Your task to perform on an android device: Play the latest video from the BBC Image 0: 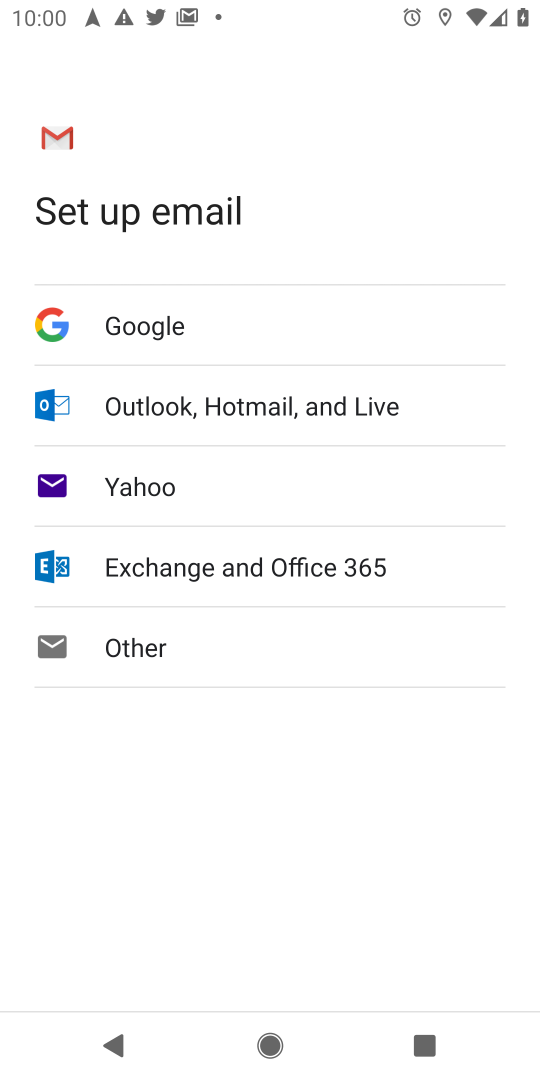
Step 0: press home button
Your task to perform on an android device: Play the latest video from the BBC Image 1: 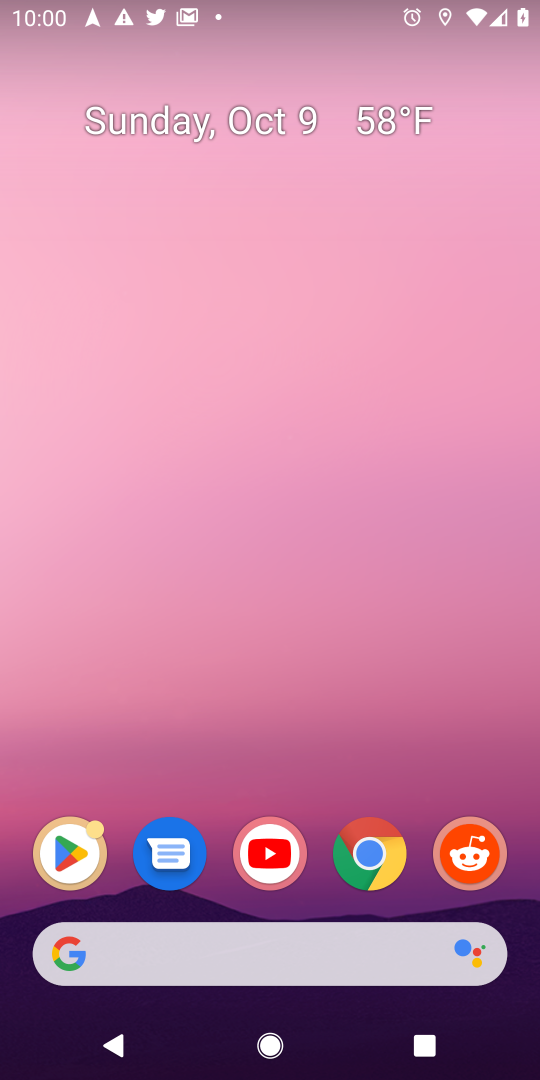
Step 1: click (258, 848)
Your task to perform on an android device: Play the latest video from the BBC Image 2: 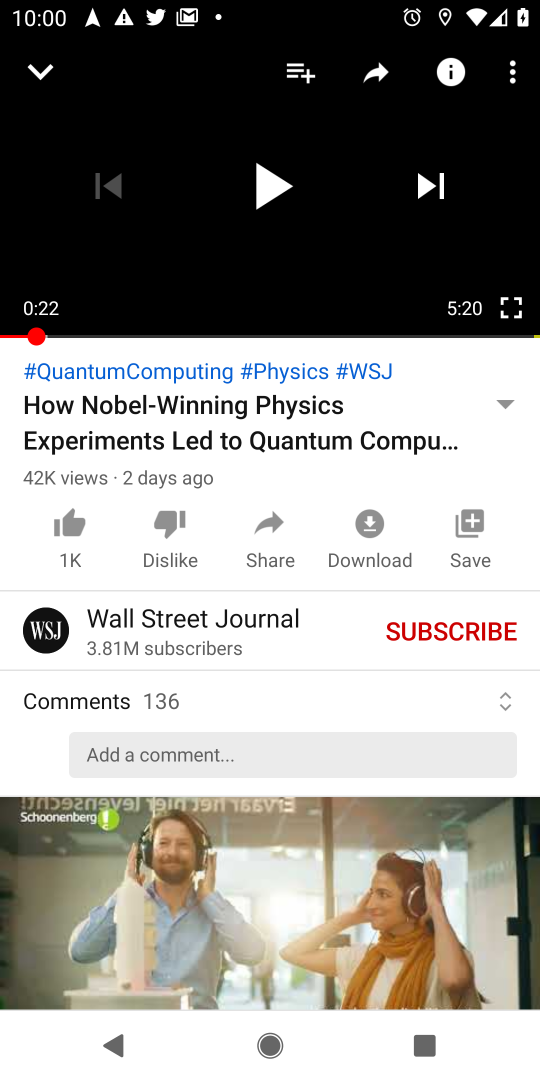
Step 2: drag from (282, 275) to (274, 975)
Your task to perform on an android device: Play the latest video from the BBC Image 3: 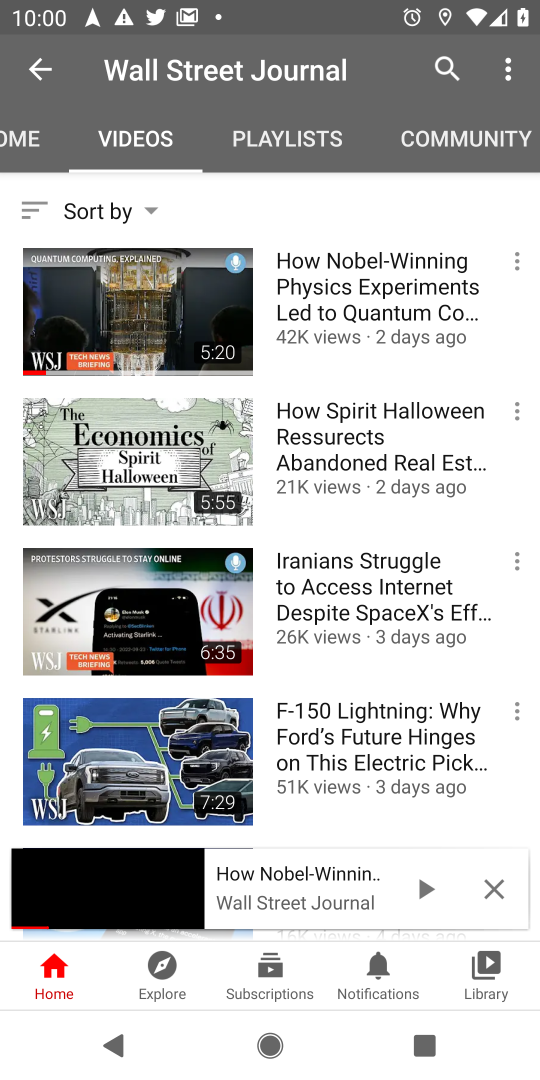
Step 3: click (455, 58)
Your task to perform on an android device: Play the latest video from the BBC Image 4: 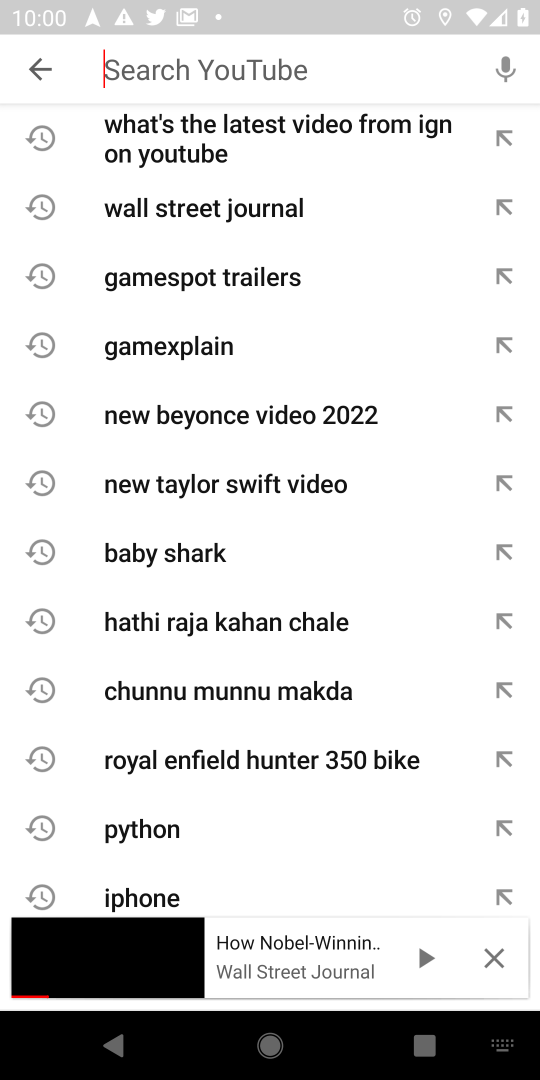
Step 4: type "bbc"
Your task to perform on an android device: Play the latest video from the BBC Image 5: 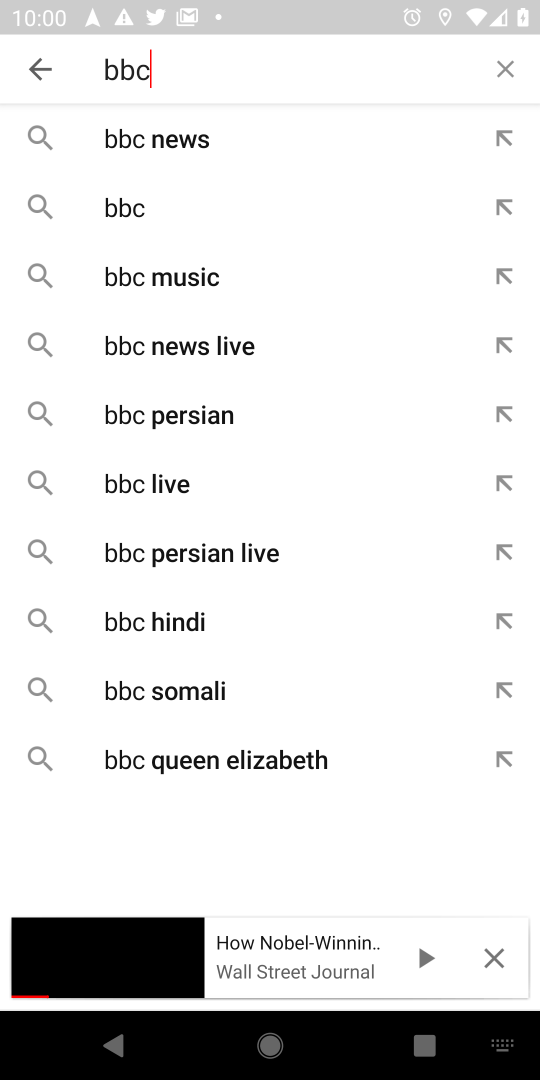
Step 5: click (134, 204)
Your task to perform on an android device: Play the latest video from the BBC Image 6: 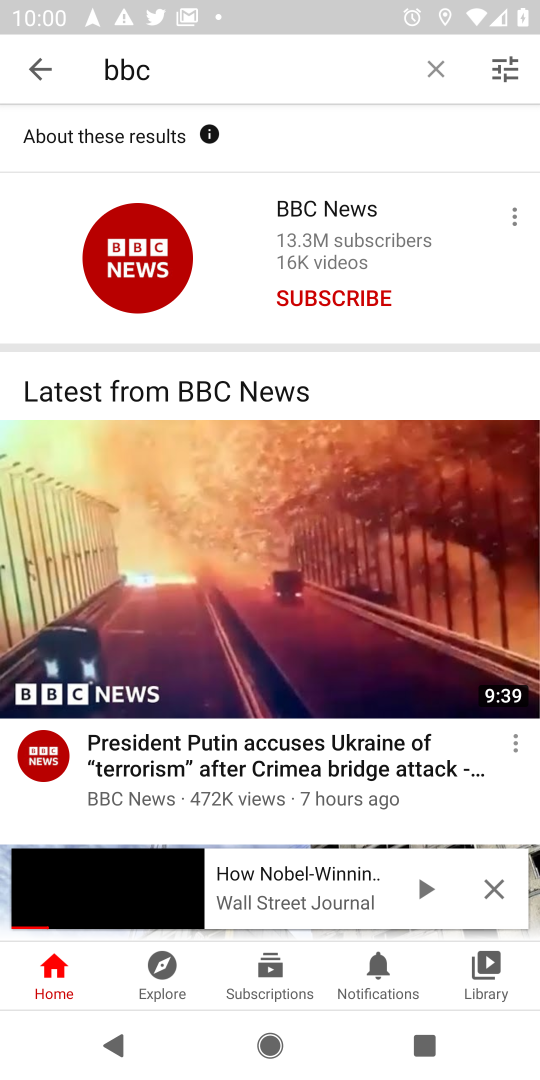
Step 6: click (394, 235)
Your task to perform on an android device: Play the latest video from the BBC Image 7: 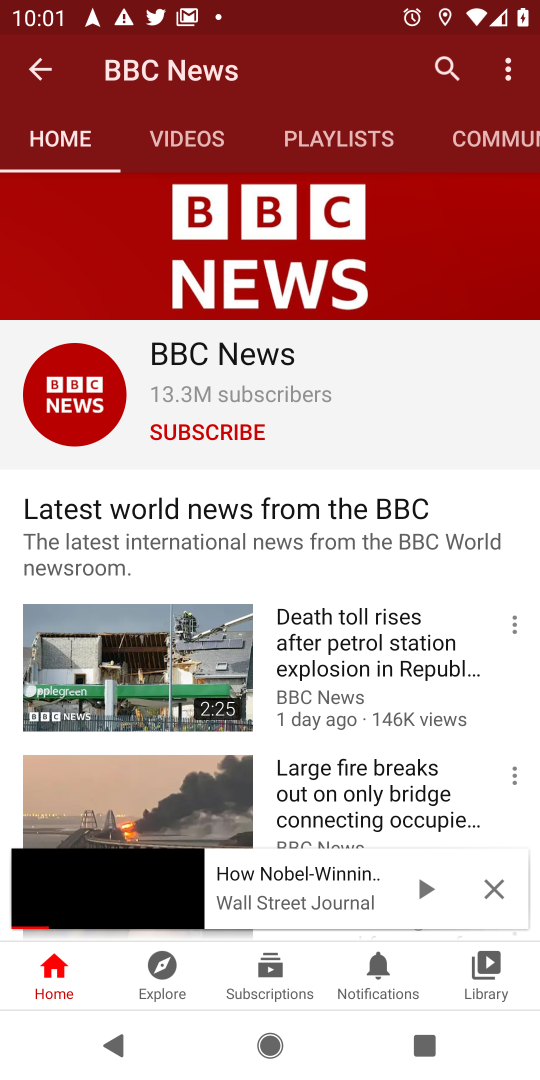
Step 7: click (202, 159)
Your task to perform on an android device: Play the latest video from the BBC Image 8: 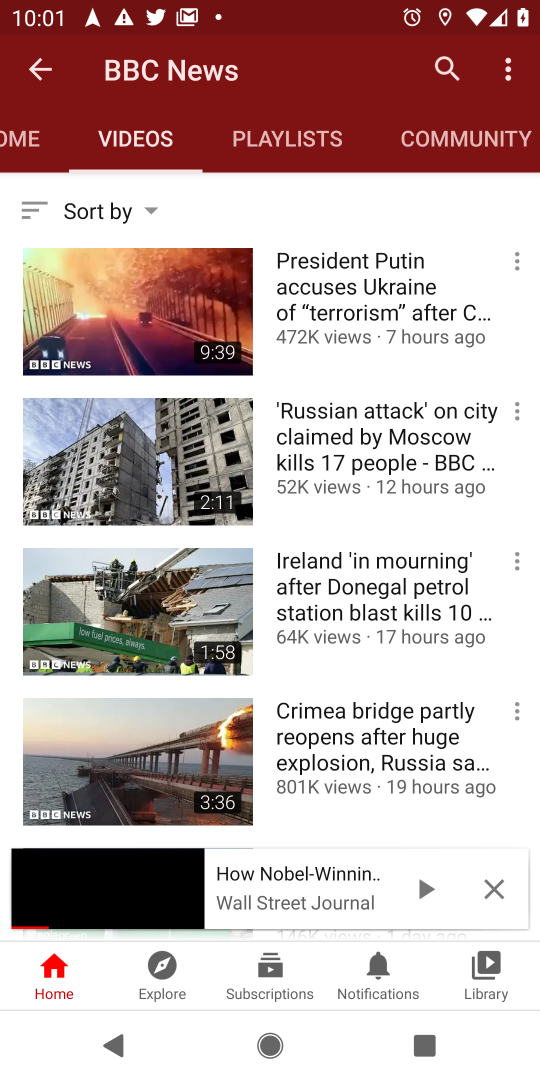
Step 8: click (296, 298)
Your task to perform on an android device: Play the latest video from the BBC Image 9: 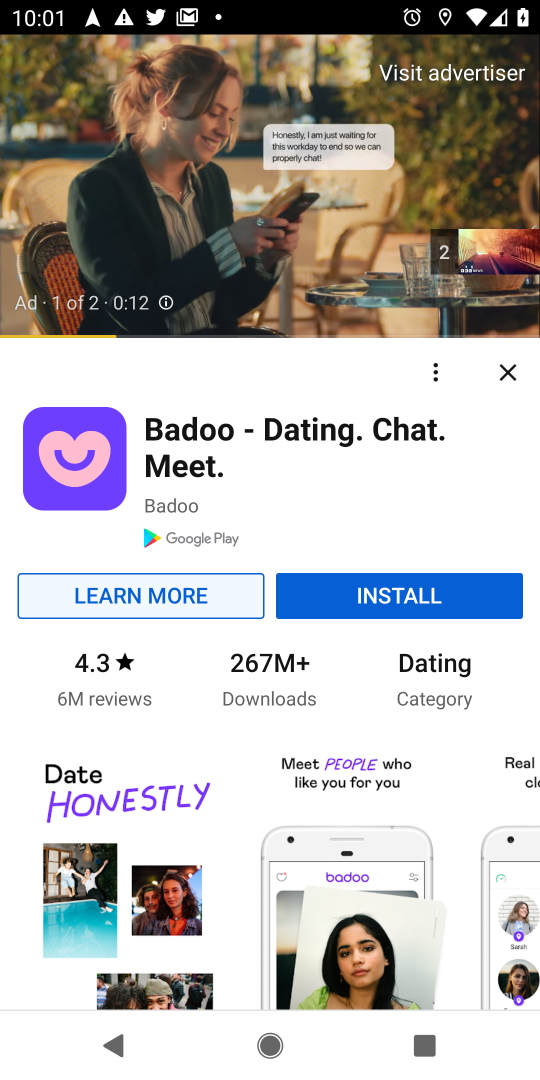
Step 9: click (509, 365)
Your task to perform on an android device: Play the latest video from the BBC Image 10: 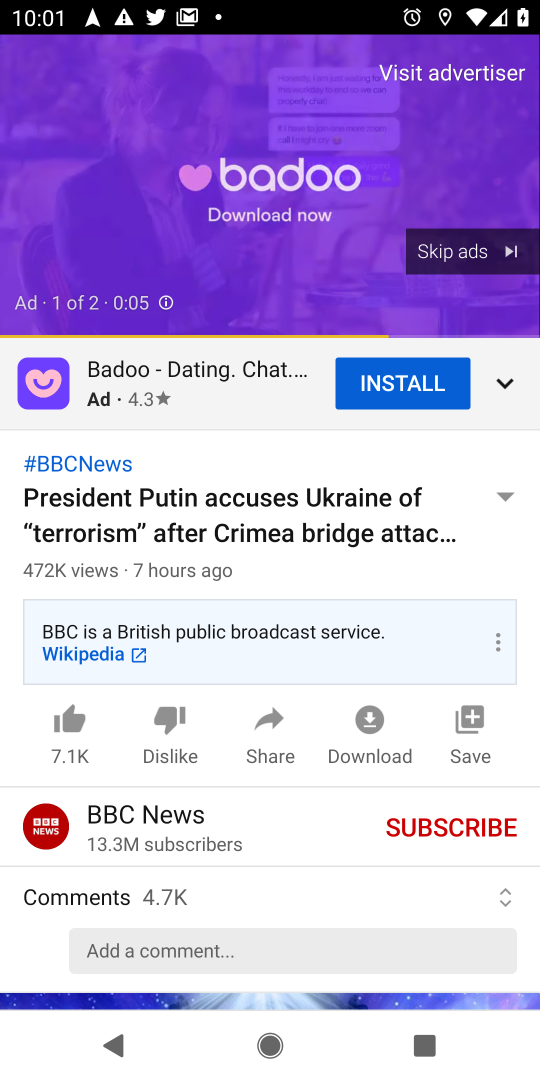
Step 10: click (505, 254)
Your task to perform on an android device: Play the latest video from the BBC Image 11: 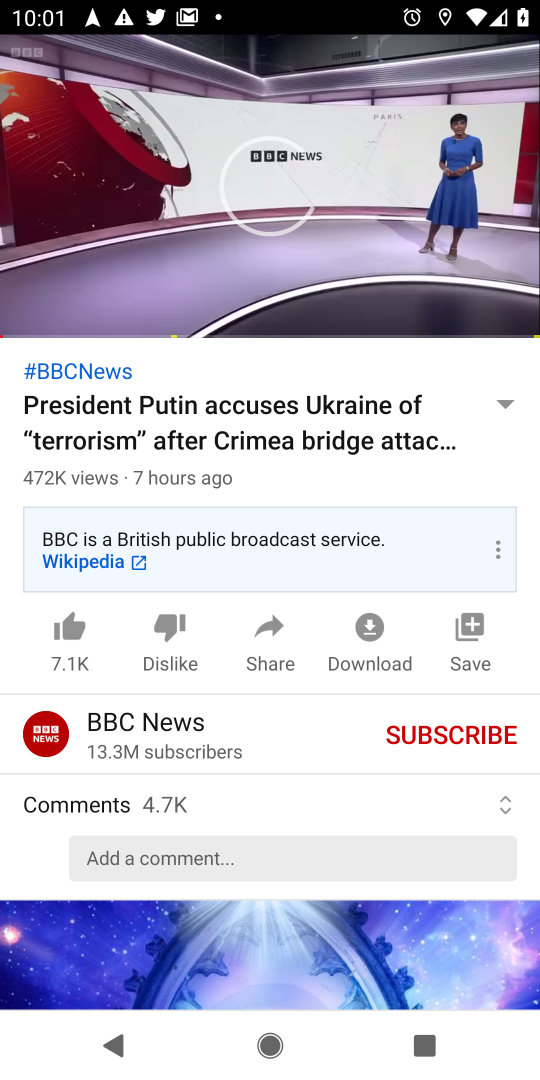
Step 11: task complete